Your task to perform on an android device: Show me the alarms in the clock app Image 0: 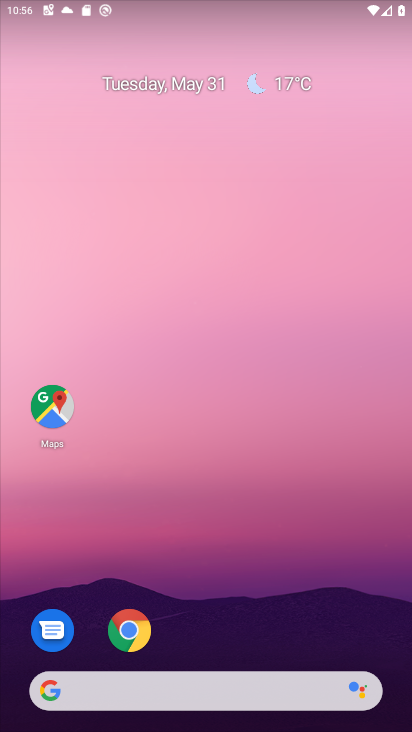
Step 0: drag from (309, 559) to (216, 79)
Your task to perform on an android device: Show me the alarms in the clock app Image 1: 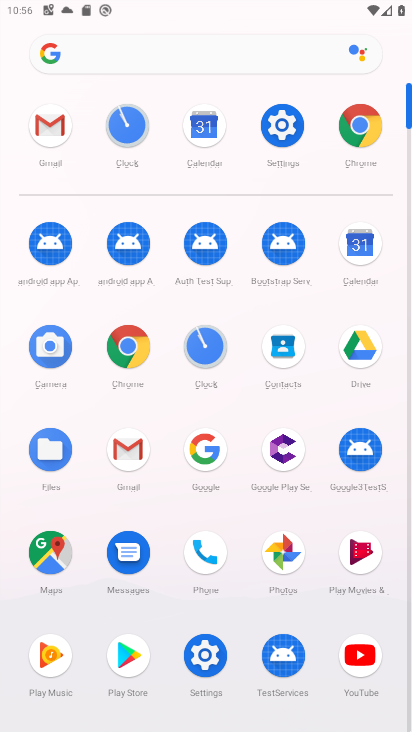
Step 1: click (185, 351)
Your task to perform on an android device: Show me the alarms in the clock app Image 2: 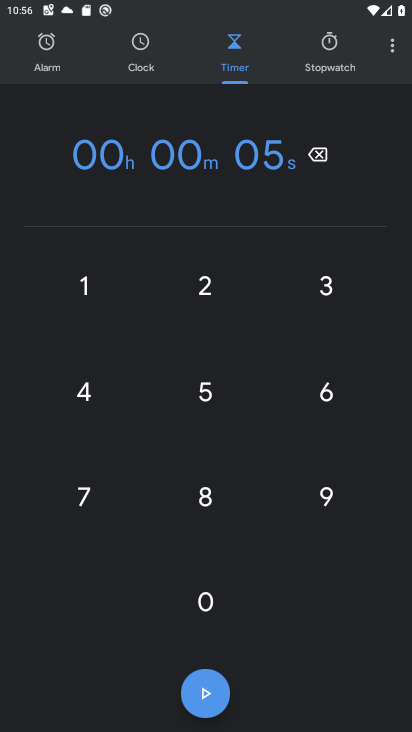
Step 2: click (49, 52)
Your task to perform on an android device: Show me the alarms in the clock app Image 3: 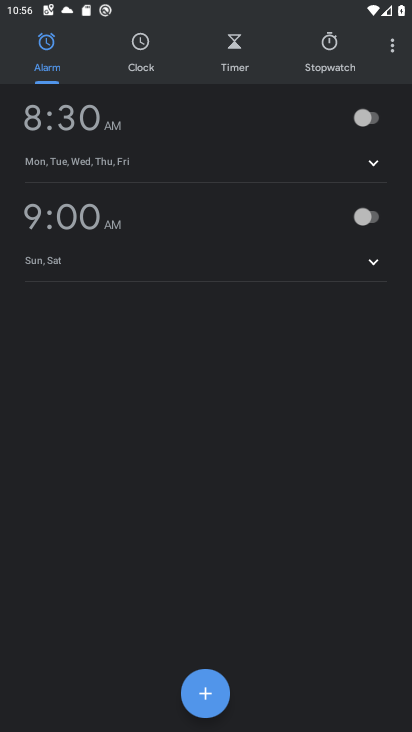
Step 3: task complete